Your task to perform on an android device: empty trash in the gmail app Image 0: 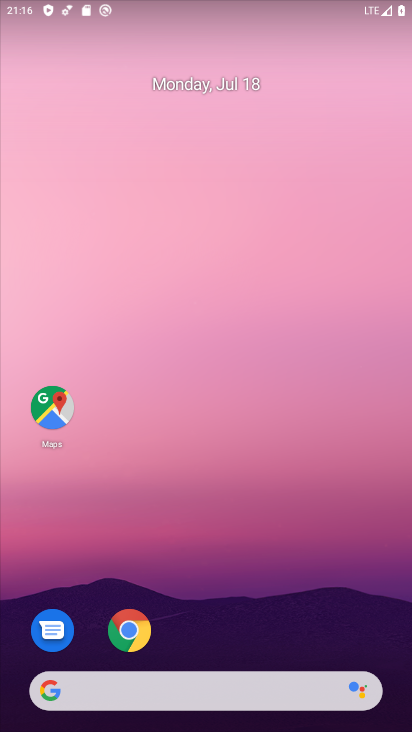
Step 0: drag from (205, 626) to (209, 255)
Your task to perform on an android device: empty trash in the gmail app Image 1: 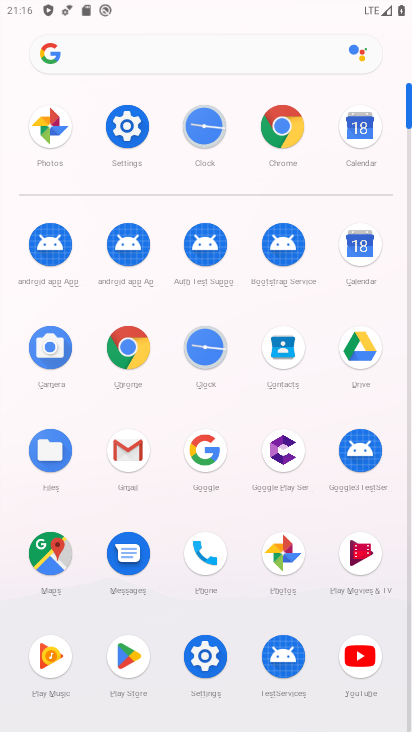
Step 1: click (134, 456)
Your task to perform on an android device: empty trash in the gmail app Image 2: 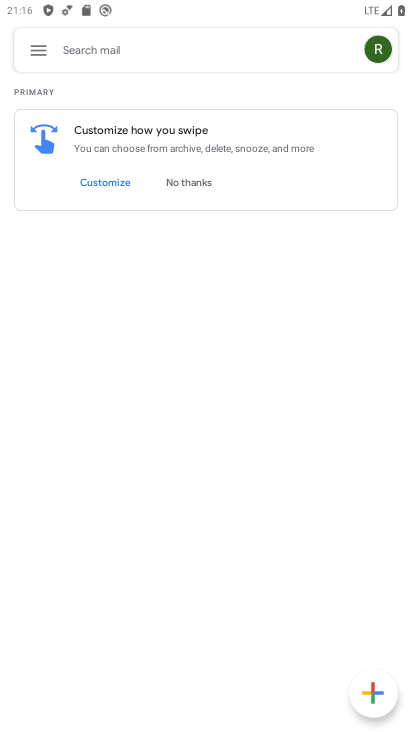
Step 2: click (26, 50)
Your task to perform on an android device: empty trash in the gmail app Image 3: 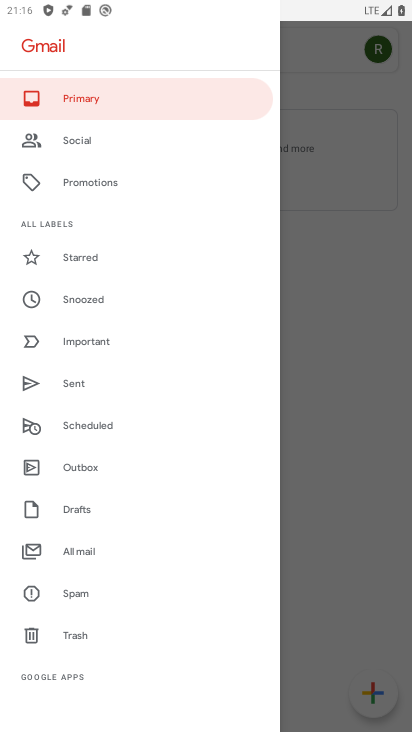
Step 3: click (88, 639)
Your task to perform on an android device: empty trash in the gmail app Image 4: 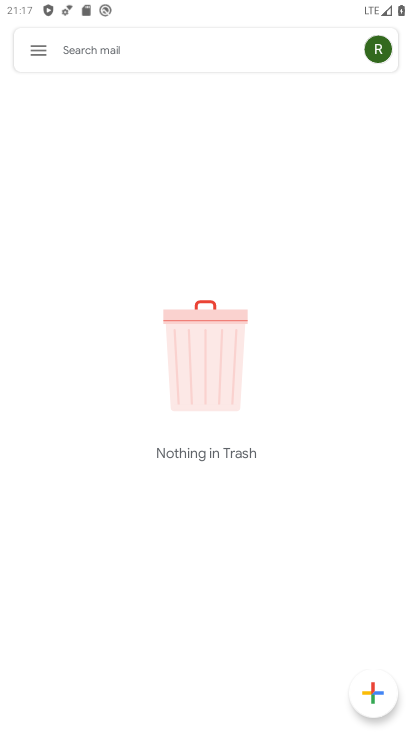
Step 4: task complete